Your task to perform on an android device: snooze an email in the gmail app Image 0: 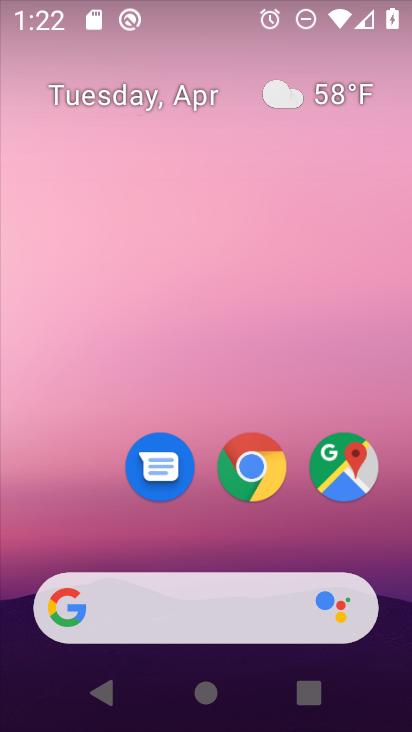
Step 0: drag from (182, 533) to (220, 5)
Your task to perform on an android device: snooze an email in the gmail app Image 1: 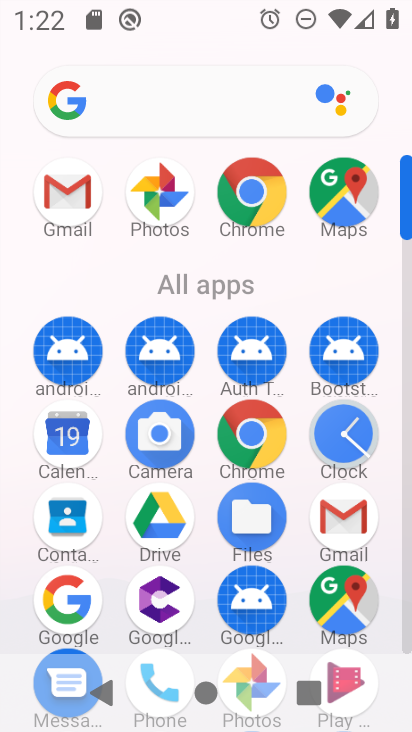
Step 1: click (328, 516)
Your task to perform on an android device: snooze an email in the gmail app Image 2: 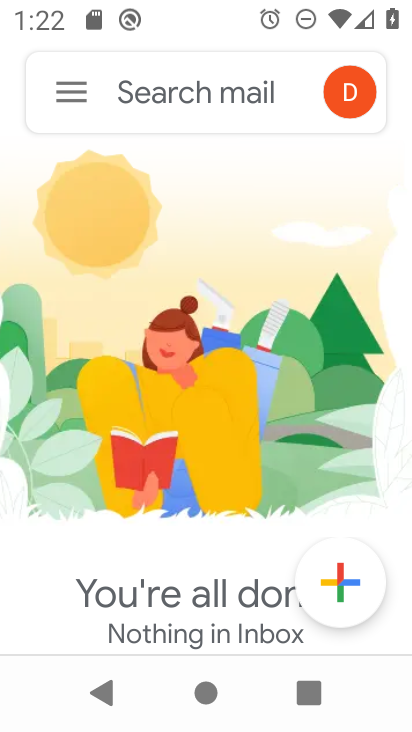
Step 2: click (78, 96)
Your task to perform on an android device: snooze an email in the gmail app Image 3: 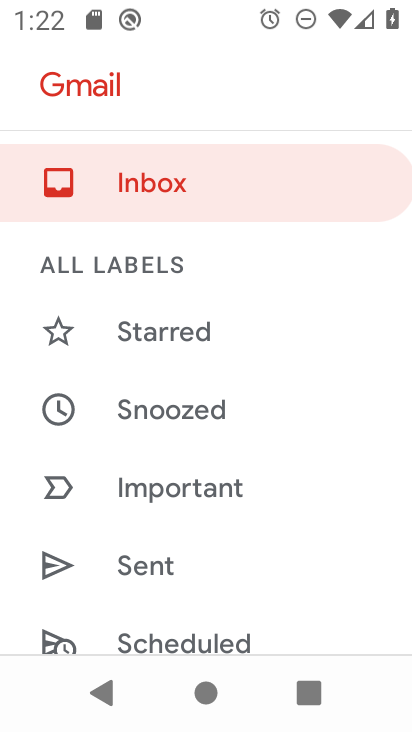
Step 3: click (173, 186)
Your task to perform on an android device: snooze an email in the gmail app Image 4: 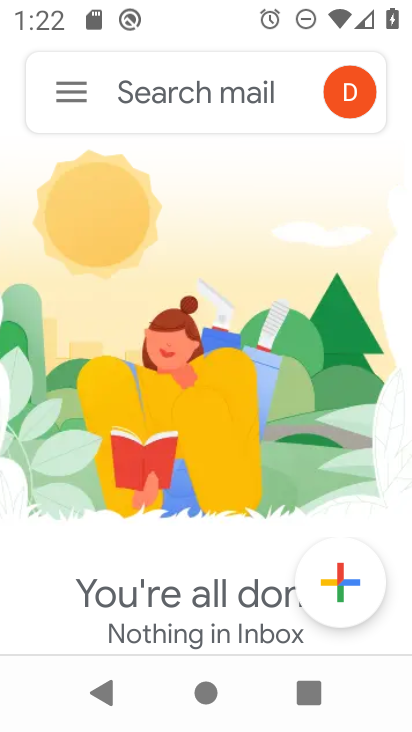
Step 4: task complete